Your task to perform on an android device: Is it going to rain this weekend? Image 0: 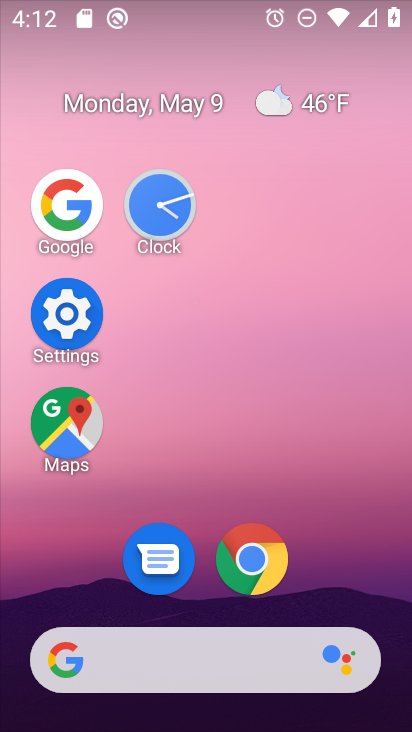
Step 0: drag from (332, 576) to (297, 88)
Your task to perform on an android device: Is it going to rain this weekend? Image 1: 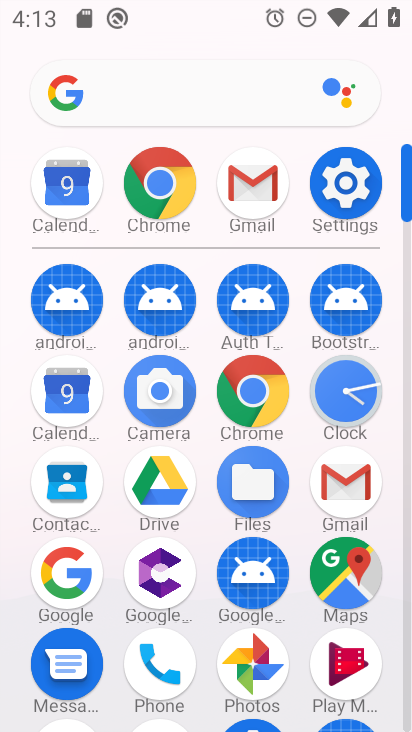
Step 1: drag from (221, 512) to (247, 239)
Your task to perform on an android device: Is it going to rain this weekend? Image 2: 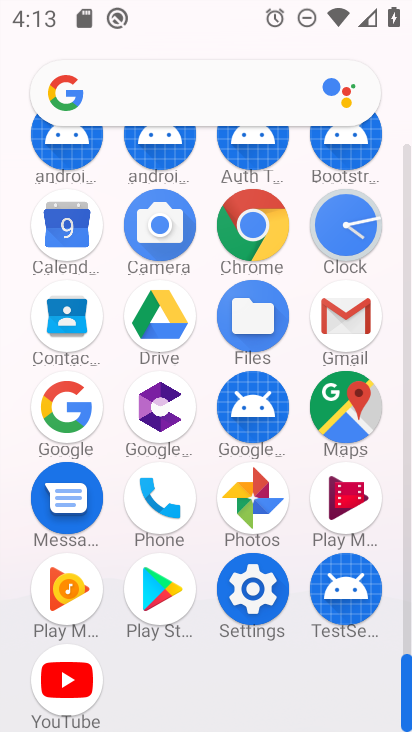
Step 2: click (66, 399)
Your task to perform on an android device: Is it going to rain this weekend? Image 3: 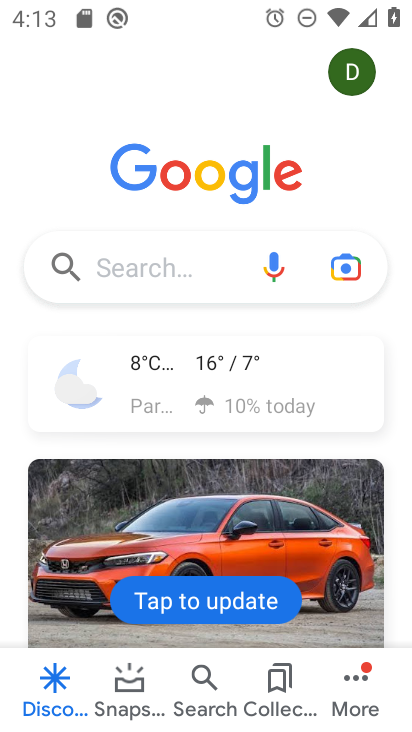
Step 3: click (181, 369)
Your task to perform on an android device: Is it going to rain this weekend? Image 4: 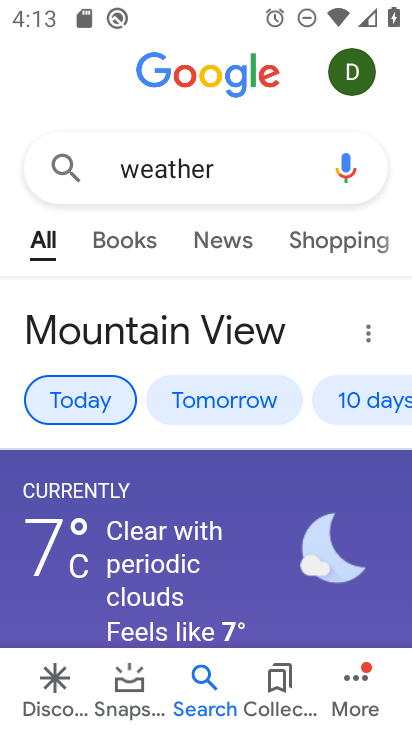
Step 4: task complete